Your task to perform on an android device: turn off data saver in the chrome app Image 0: 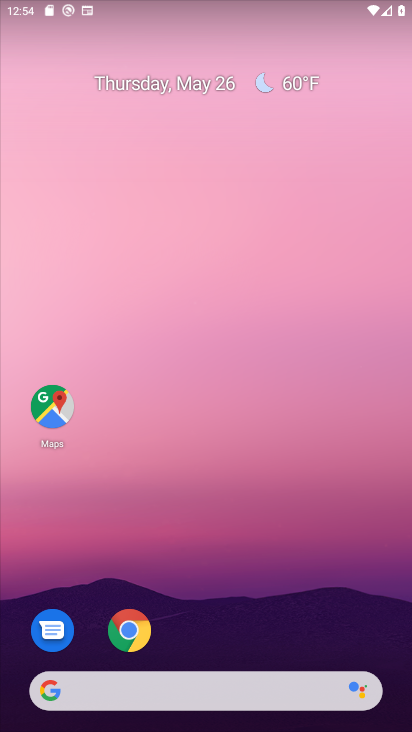
Step 0: drag from (193, 638) to (170, 34)
Your task to perform on an android device: turn off data saver in the chrome app Image 1: 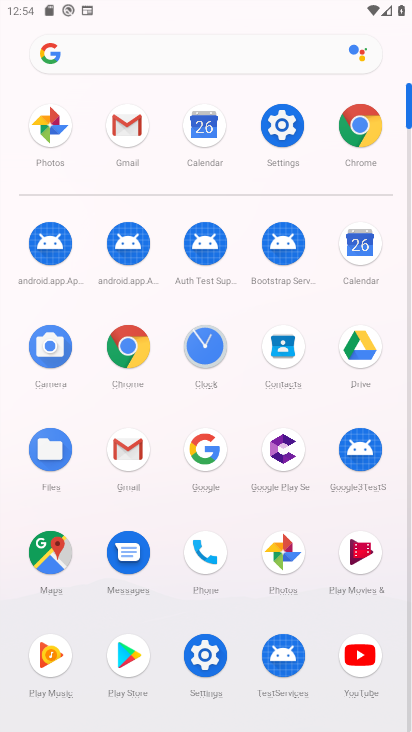
Step 1: click (372, 132)
Your task to perform on an android device: turn off data saver in the chrome app Image 2: 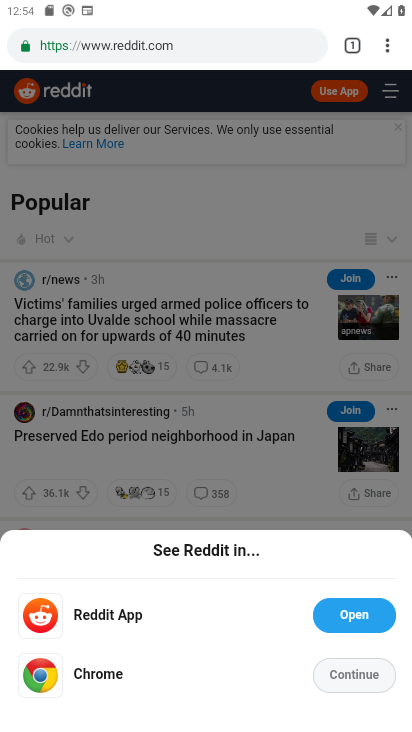
Step 2: drag from (394, 55) to (218, 591)
Your task to perform on an android device: turn off data saver in the chrome app Image 3: 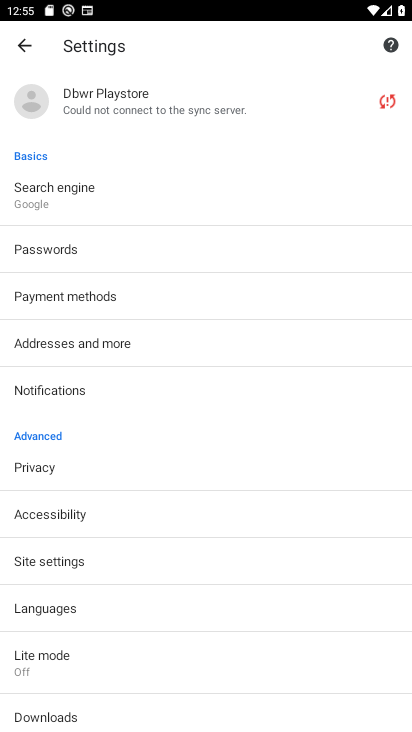
Step 3: drag from (81, 643) to (80, 115)
Your task to perform on an android device: turn off data saver in the chrome app Image 4: 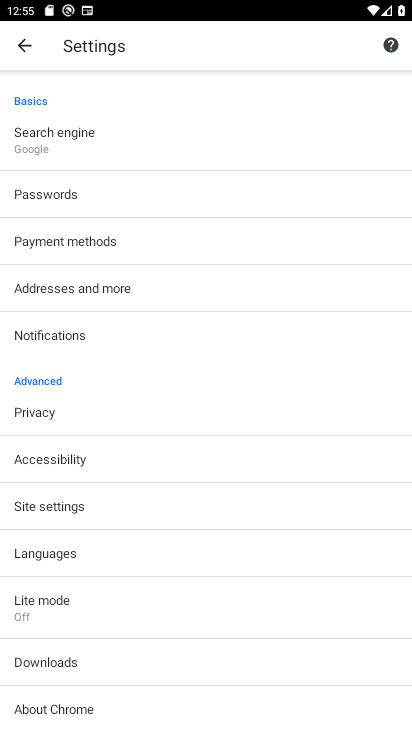
Step 4: click (75, 610)
Your task to perform on an android device: turn off data saver in the chrome app Image 5: 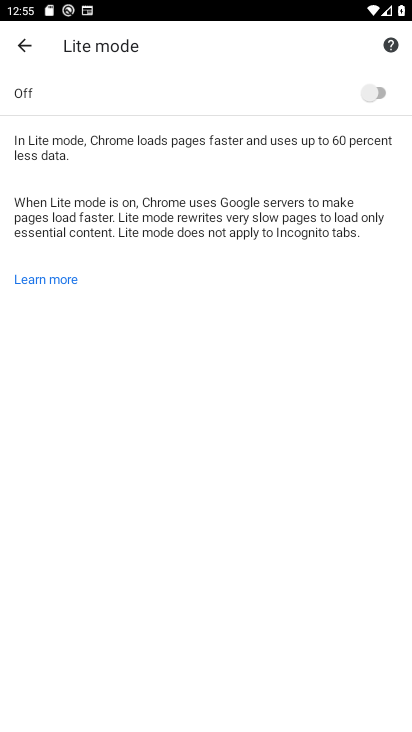
Step 5: task complete